Your task to perform on an android device: open wifi settings Image 0: 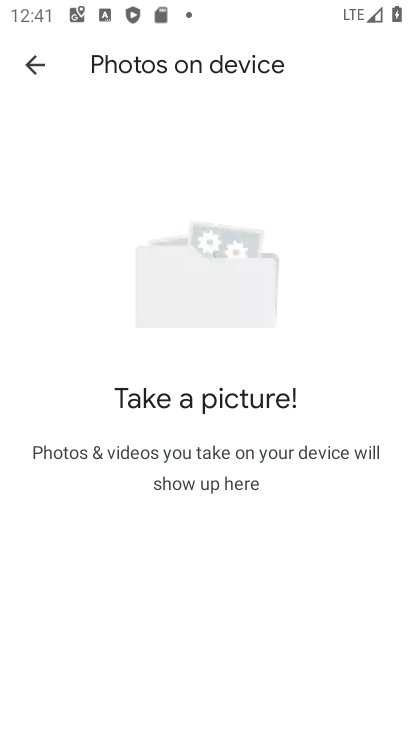
Step 0: drag from (201, 14) to (147, 699)
Your task to perform on an android device: open wifi settings Image 1: 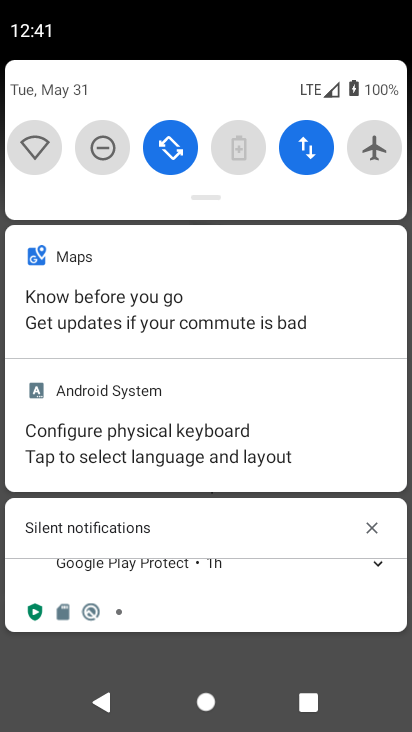
Step 1: click (37, 157)
Your task to perform on an android device: open wifi settings Image 2: 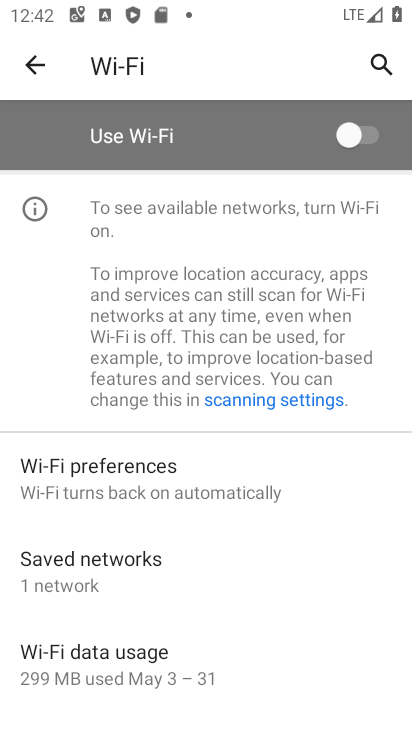
Step 2: task complete